Your task to perform on an android device: open device folders in google photos Image 0: 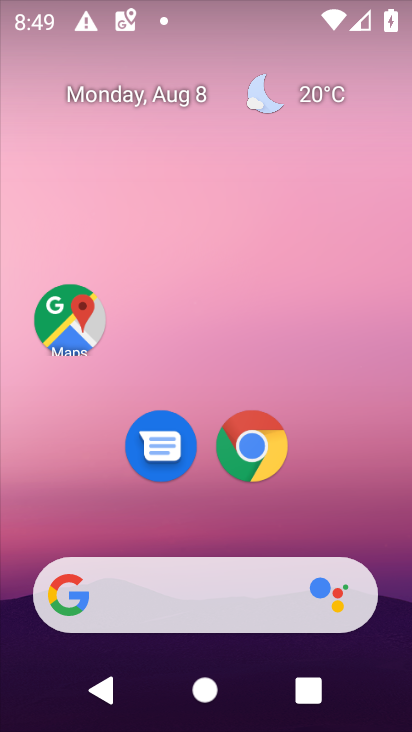
Step 0: drag from (398, 630) to (285, 106)
Your task to perform on an android device: open device folders in google photos Image 1: 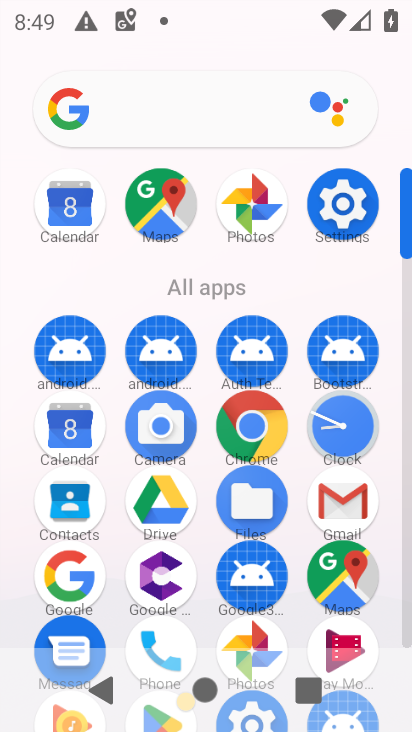
Step 1: click (407, 636)
Your task to perform on an android device: open device folders in google photos Image 2: 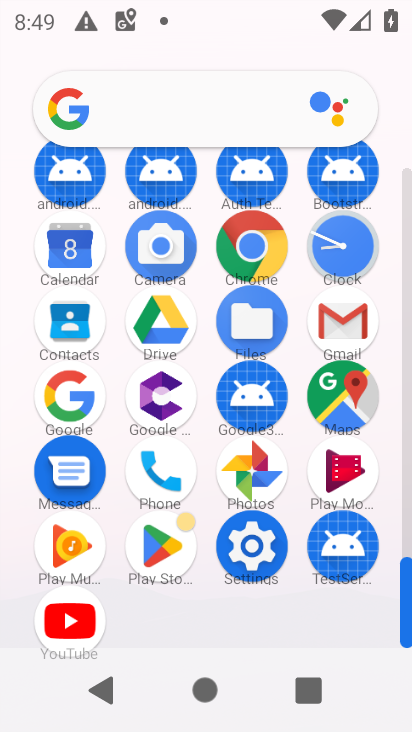
Step 2: click (249, 470)
Your task to perform on an android device: open device folders in google photos Image 3: 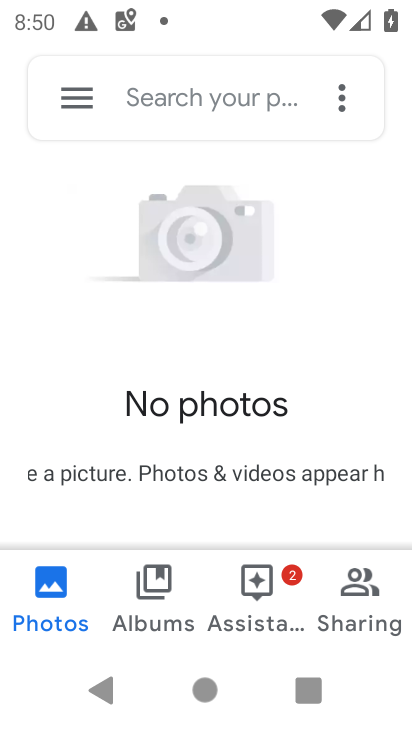
Step 3: click (79, 102)
Your task to perform on an android device: open device folders in google photos Image 4: 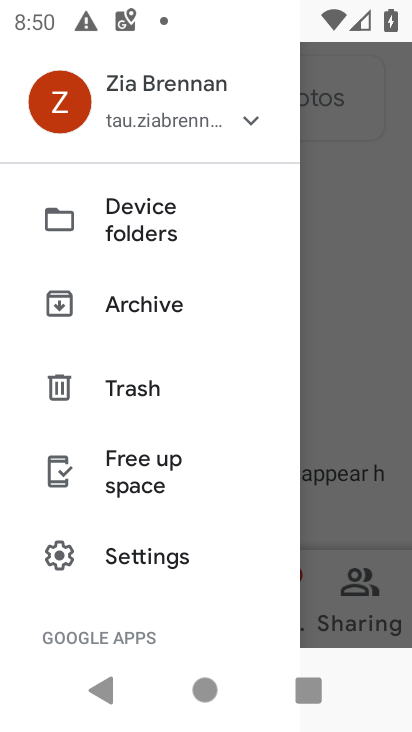
Step 4: click (145, 210)
Your task to perform on an android device: open device folders in google photos Image 5: 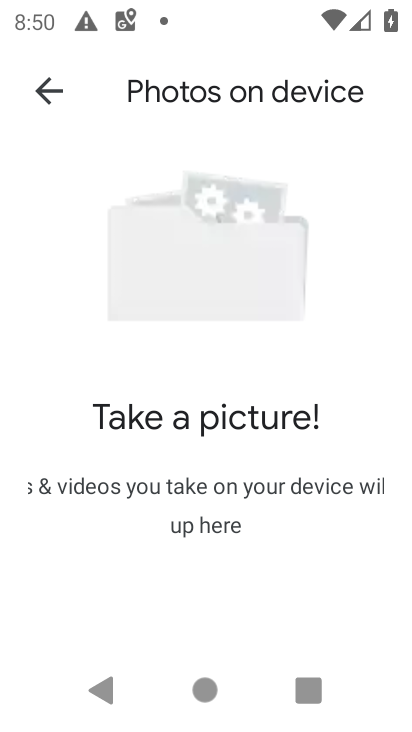
Step 5: task complete